Your task to perform on an android device: Search for vegetarian restaurants on Maps Image 0: 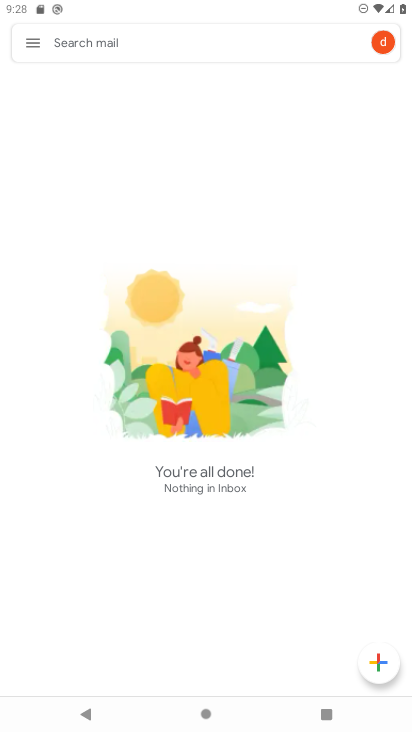
Step 0: press home button
Your task to perform on an android device: Search for vegetarian restaurants on Maps Image 1: 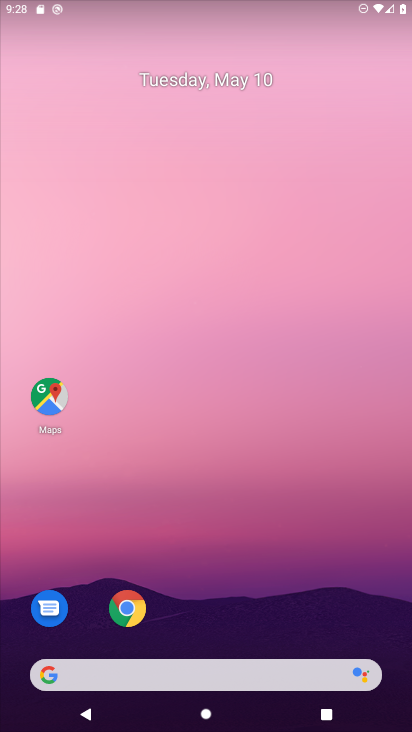
Step 1: drag from (388, 660) to (310, 9)
Your task to perform on an android device: Search for vegetarian restaurants on Maps Image 2: 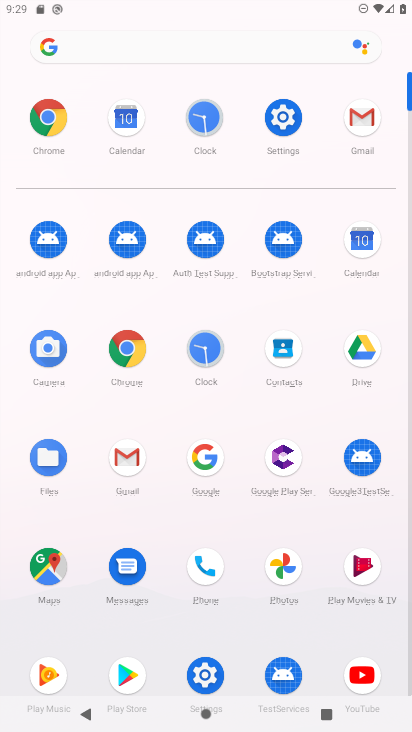
Step 2: click (35, 576)
Your task to perform on an android device: Search for vegetarian restaurants on Maps Image 3: 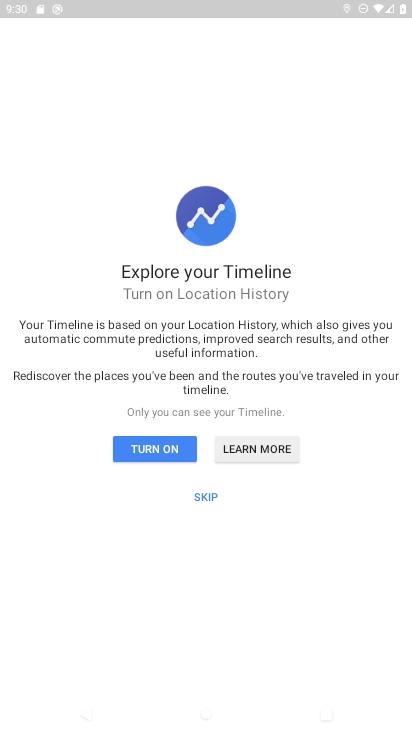
Step 3: press back button
Your task to perform on an android device: Search for vegetarian restaurants on Maps Image 4: 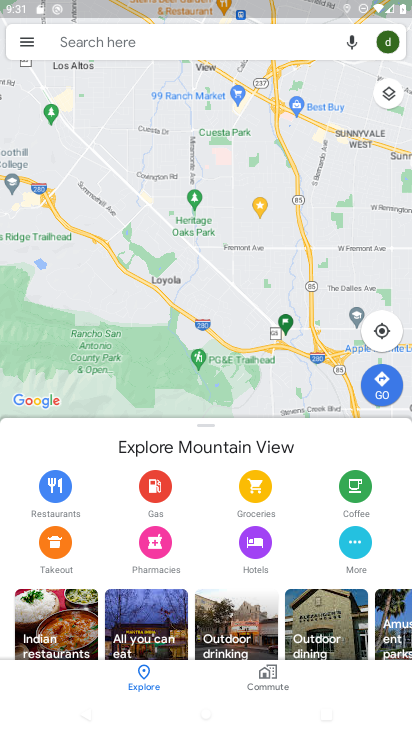
Step 4: click (202, 47)
Your task to perform on an android device: Search for vegetarian restaurants on Maps Image 5: 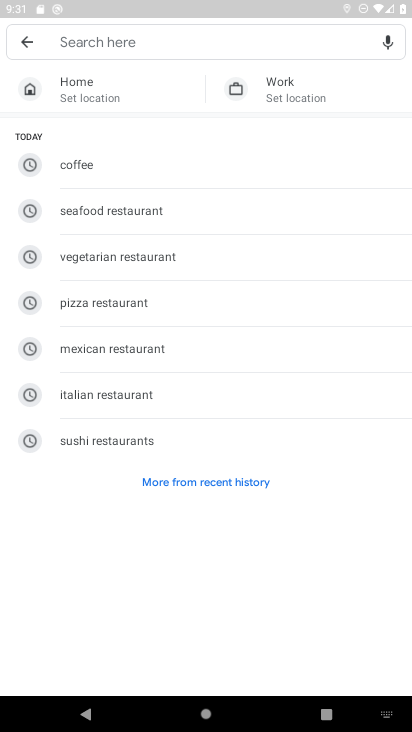
Step 5: click (119, 251)
Your task to perform on an android device: Search for vegetarian restaurants on Maps Image 6: 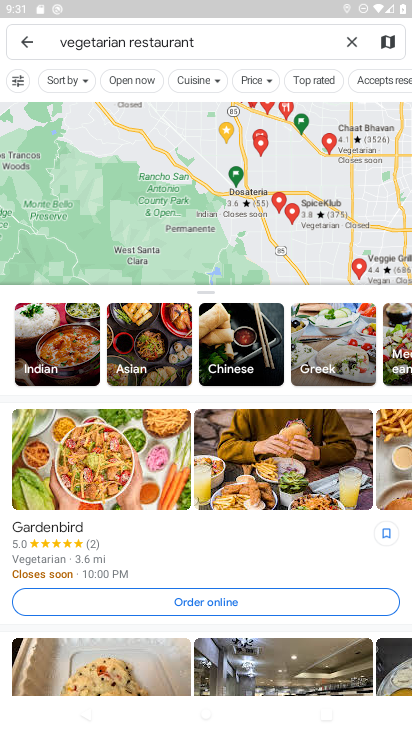
Step 6: task complete